Your task to perform on an android device: Add "macbook pro 15 inch" to the cart on walmart Image 0: 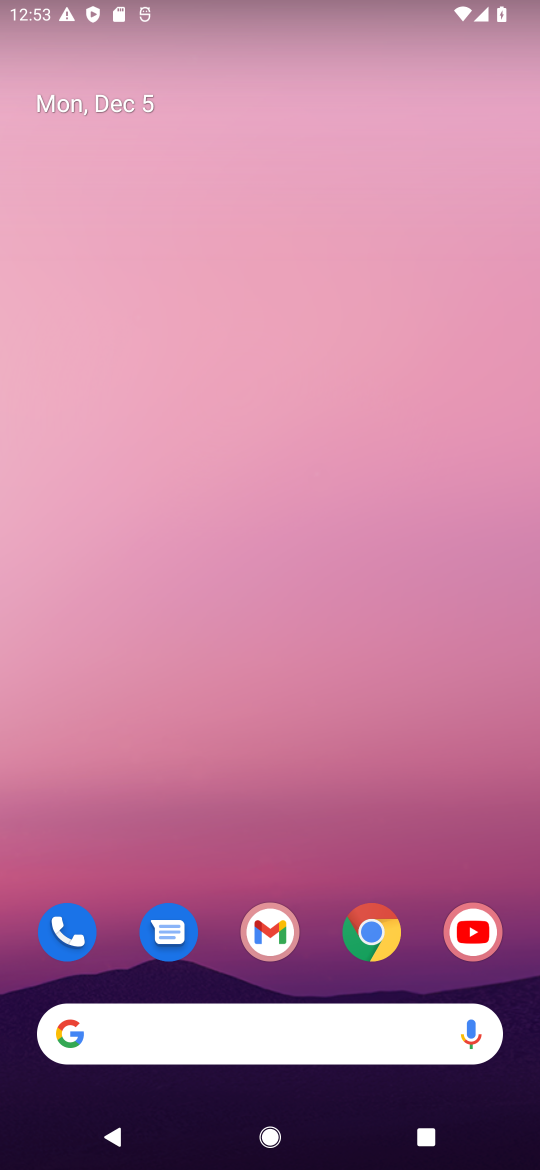
Step 0: click (374, 934)
Your task to perform on an android device: Add "macbook pro 15 inch" to the cart on walmart Image 1: 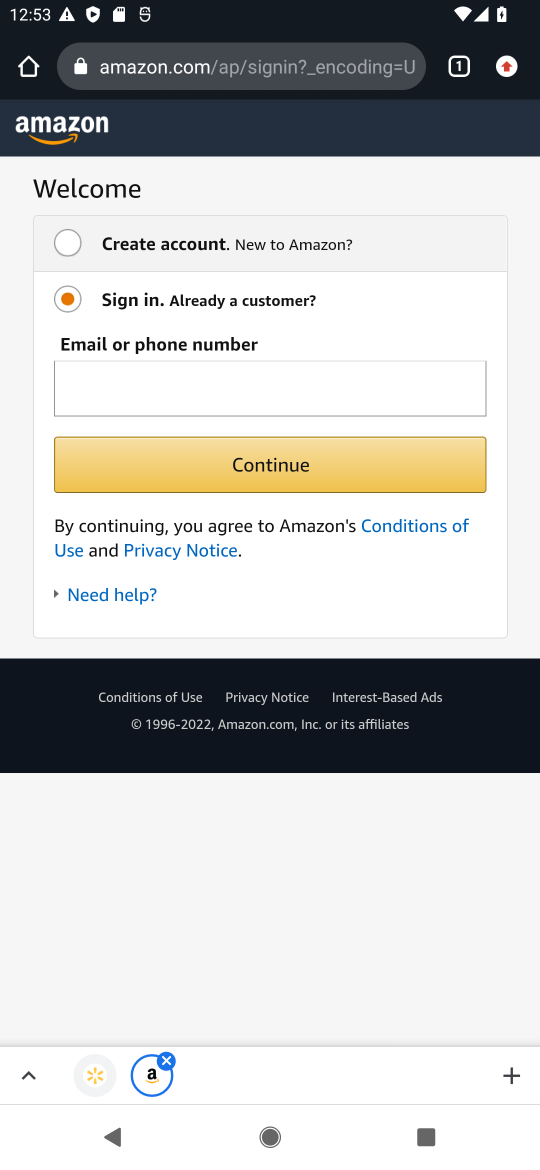
Step 1: click (271, 67)
Your task to perform on an android device: Add "macbook pro 15 inch" to the cart on walmart Image 2: 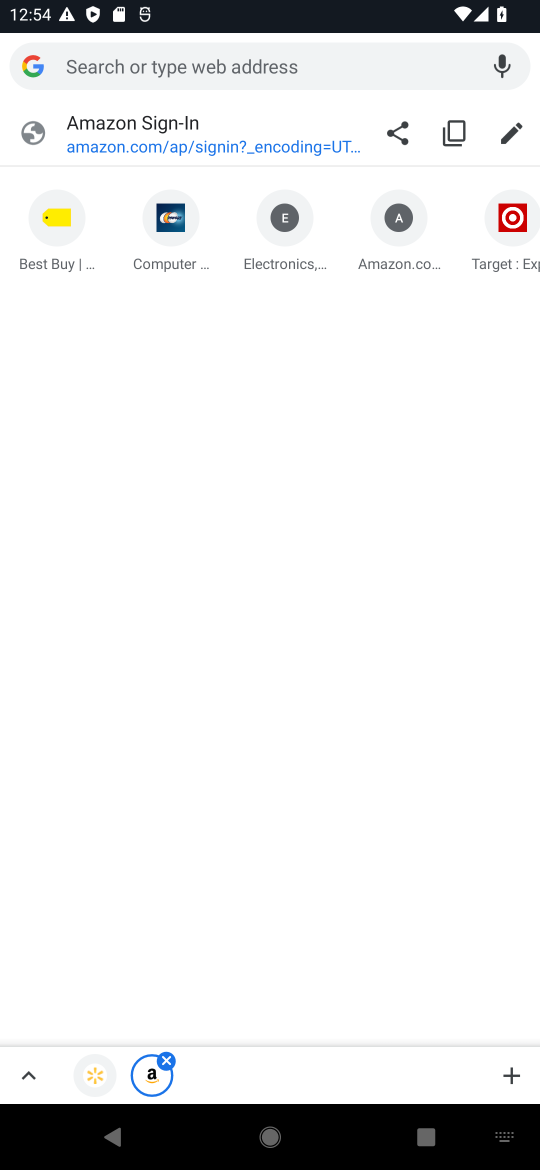
Step 2: type "walmart"
Your task to perform on an android device: Add "macbook pro 15 inch" to the cart on walmart Image 3: 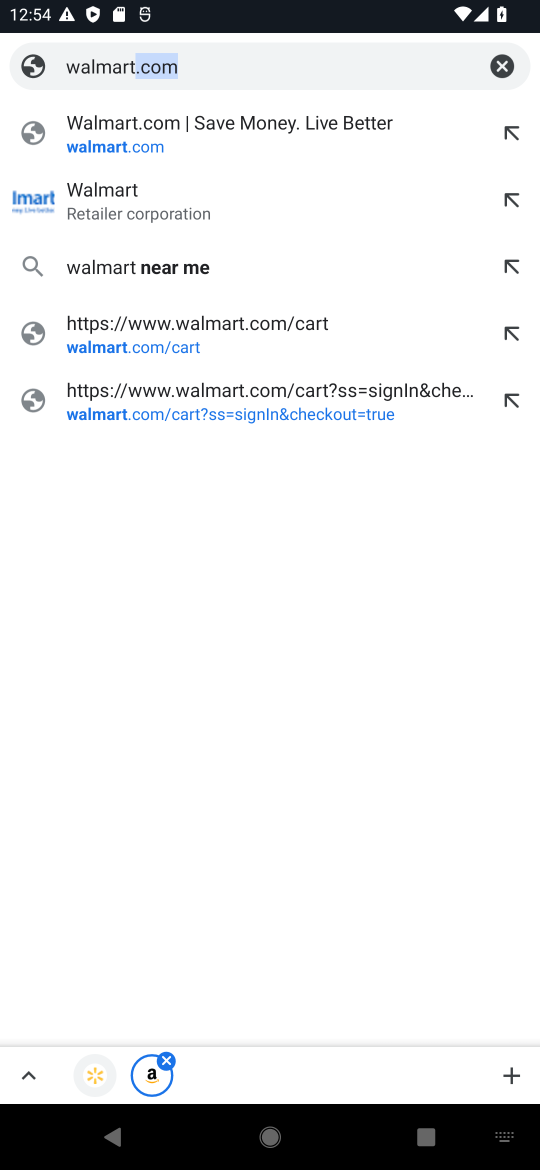
Step 3: click (135, 134)
Your task to perform on an android device: Add "macbook pro 15 inch" to the cart on walmart Image 4: 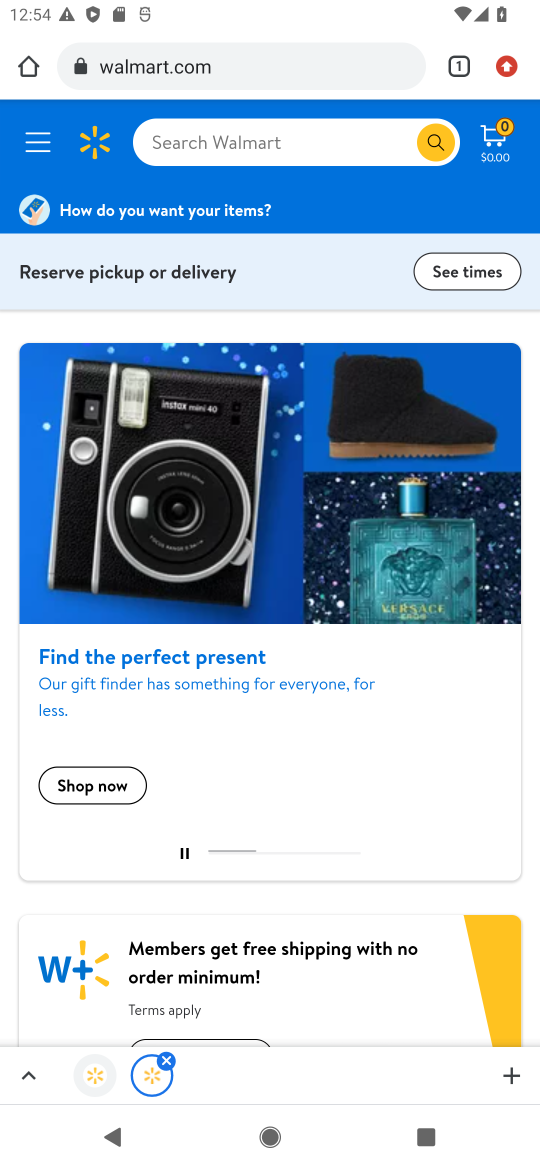
Step 4: click (293, 140)
Your task to perform on an android device: Add "macbook pro 15 inch" to the cart on walmart Image 5: 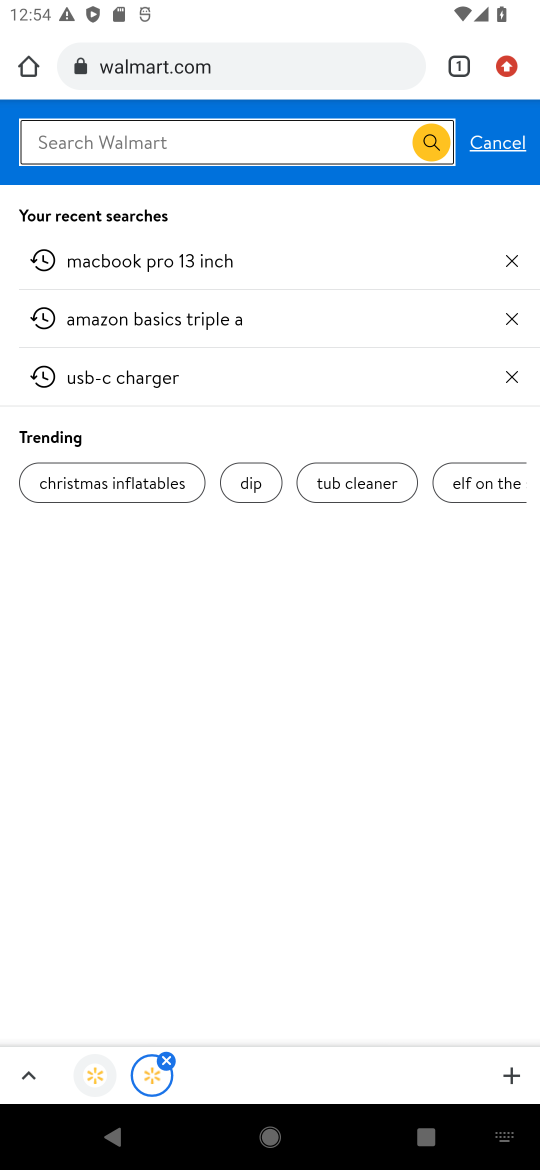
Step 5: type "macbook pro 15 inch"
Your task to perform on an android device: Add "macbook pro 15 inch" to the cart on walmart Image 6: 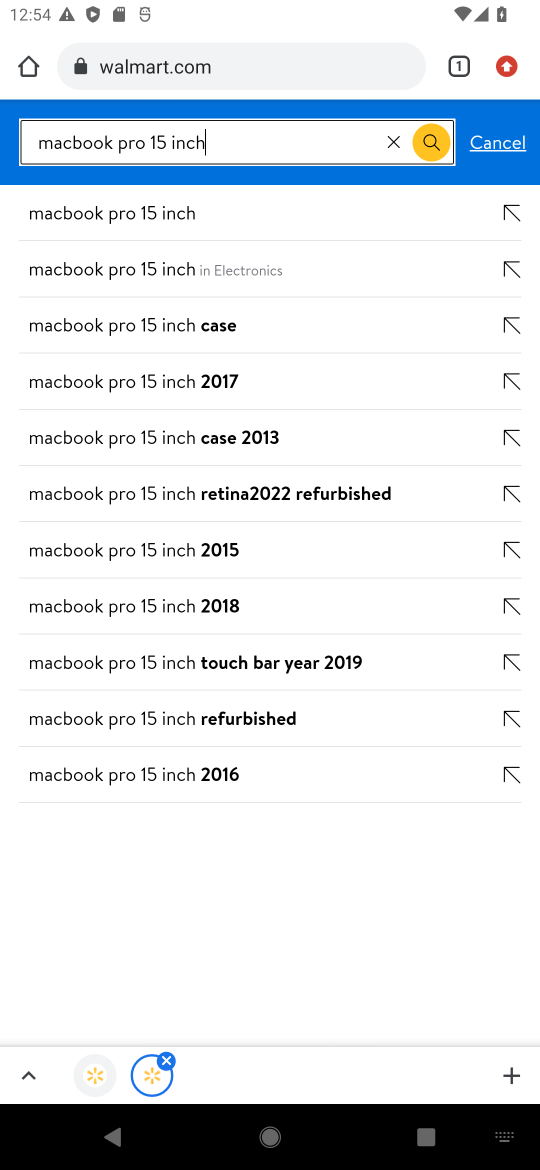
Step 6: click (171, 213)
Your task to perform on an android device: Add "macbook pro 15 inch" to the cart on walmart Image 7: 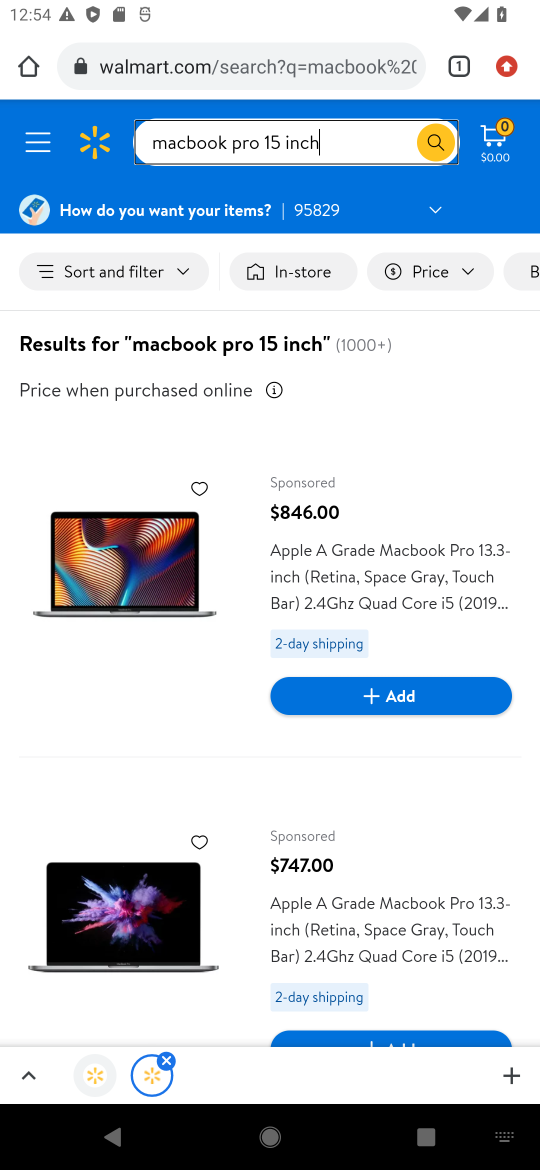
Step 7: click (147, 580)
Your task to perform on an android device: Add "macbook pro 15 inch" to the cart on walmart Image 8: 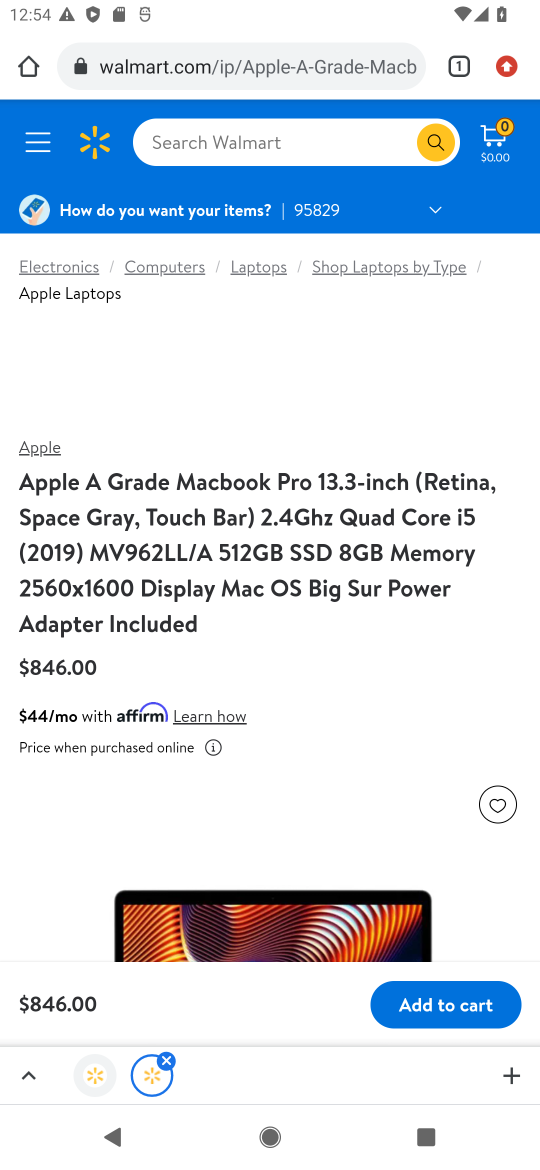
Step 8: click (450, 1009)
Your task to perform on an android device: Add "macbook pro 15 inch" to the cart on walmart Image 9: 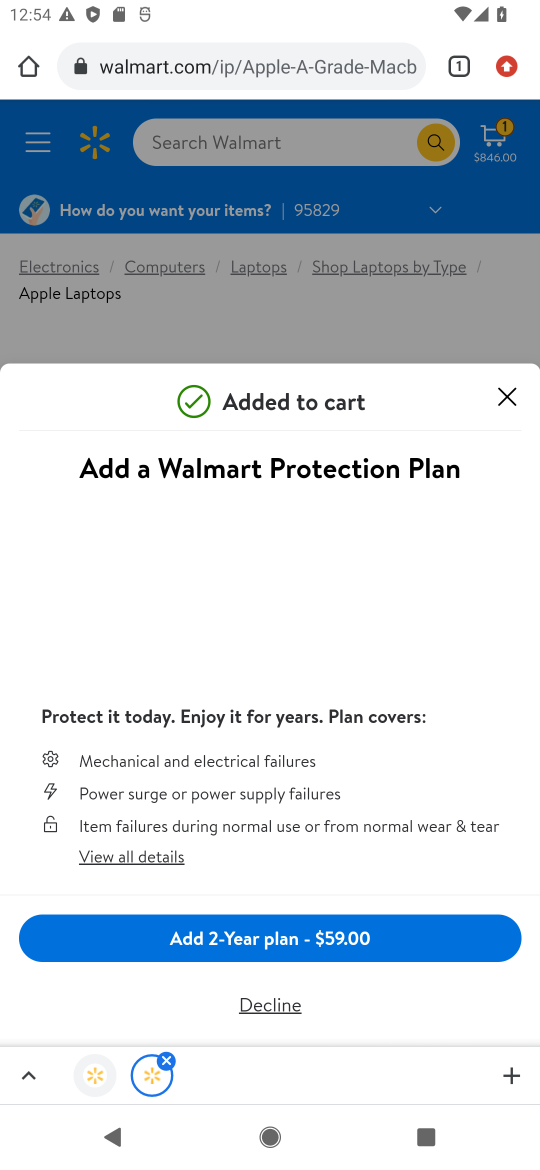
Step 9: click (511, 397)
Your task to perform on an android device: Add "macbook pro 15 inch" to the cart on walmart Image 10: 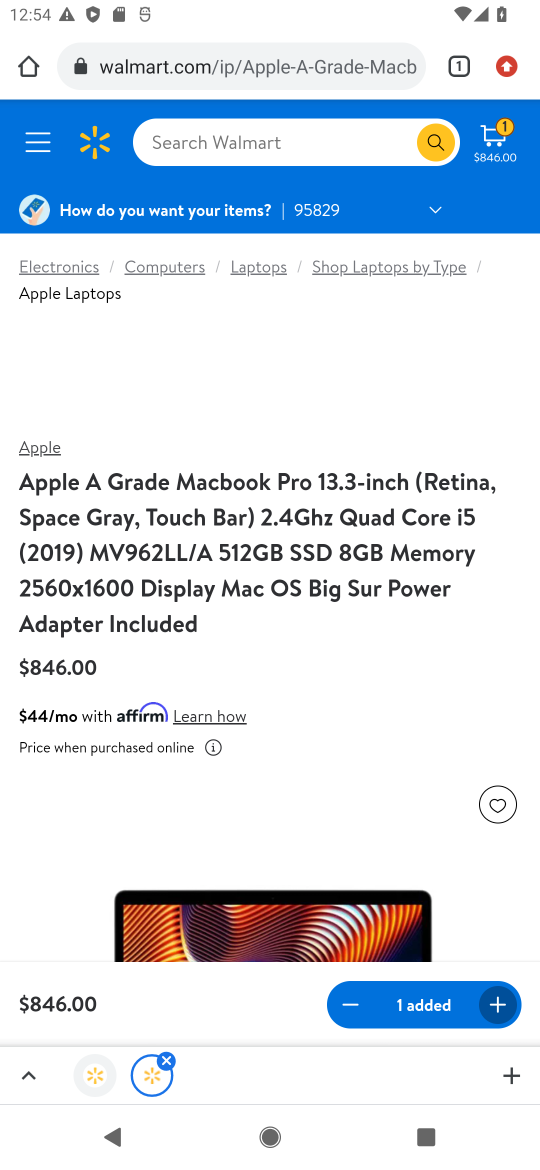
Step 10: task complete